Your task to perform on an android device: Open Reddit.com Image 0: 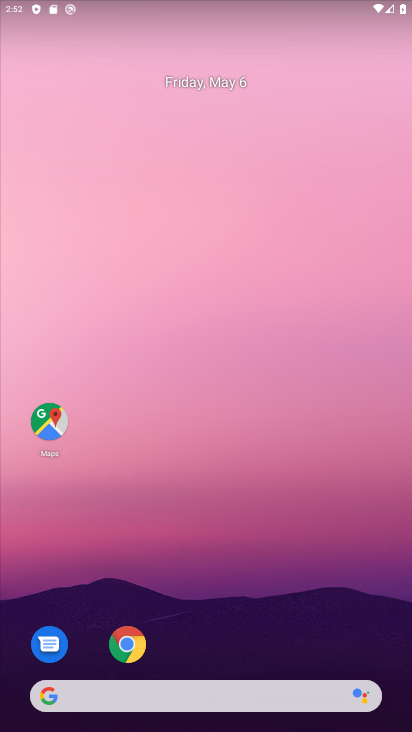
Step 0: click (121, 640)
Your task to perform on an android device: Open Reddit.com Image 1: 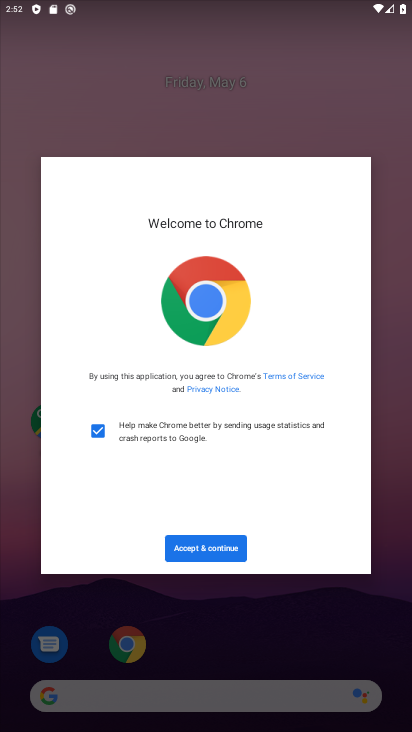
Step 1: click (205, 549)
Your task to perform on an android device: Open Reddit.com Image 2: 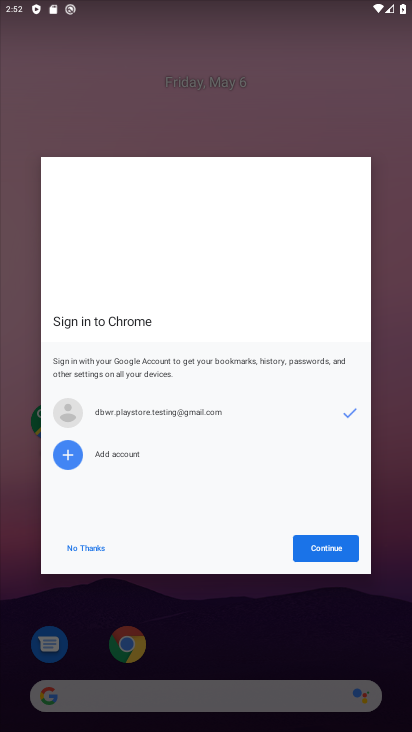
Step 2: click (313, 543)
Your task to perform on an android device: Open Reddit.com Image 3: 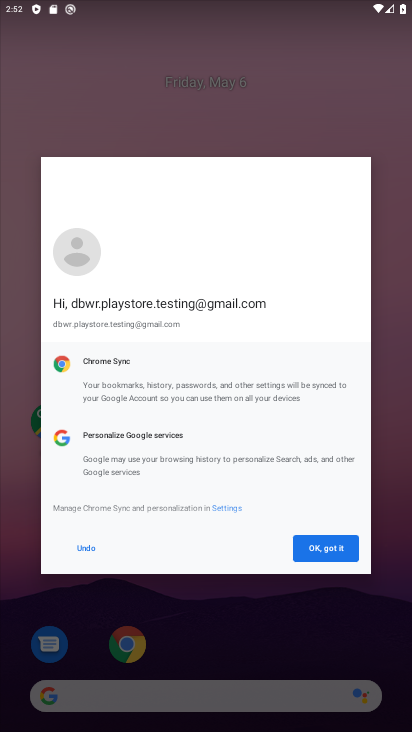
Step 3: click (325, 547)
Your task to perform on an android device: Open Reddit.com Image 4: 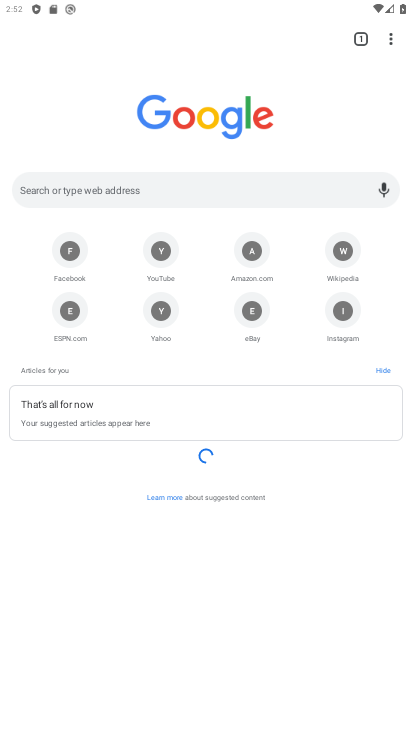
Step 4: click (225, 191)
Your task to perform on an android device: Open Reddit.com Image 5: 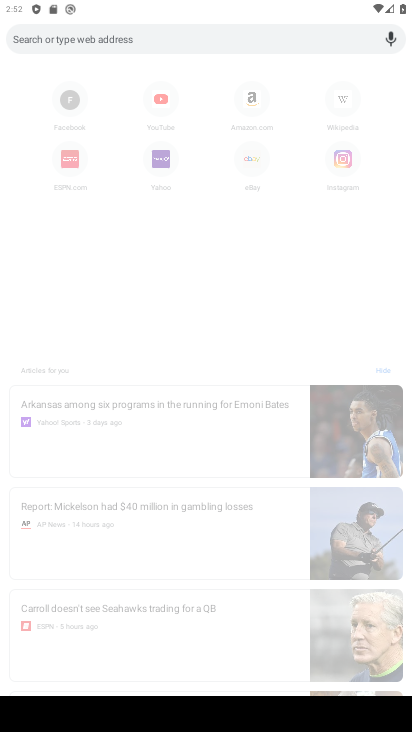
Step 5: type "Reddit.com"
Your task to perform on an android device: Open Reddit.com Image 6: 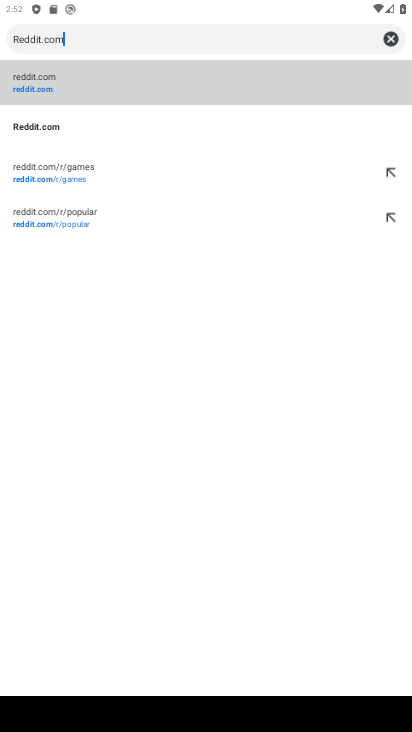
Step 6: type ""
Your task to perform on an android device: Open Reddit.com Image 7: 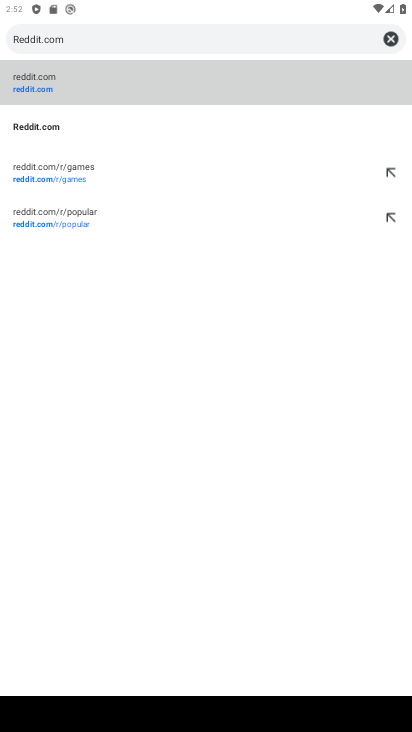
Step 7: click (52, 77)
Your task to perform on an android device: Open Reddit.com Image 8: 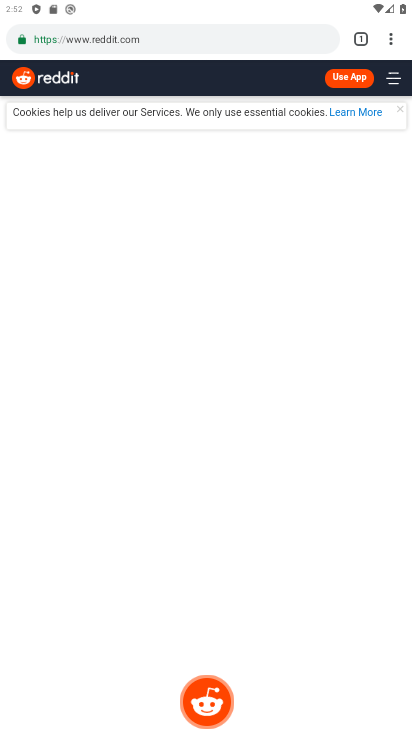
Step 8: task complete